Your task to perform on an android device: Open Google Chrome Image 0: 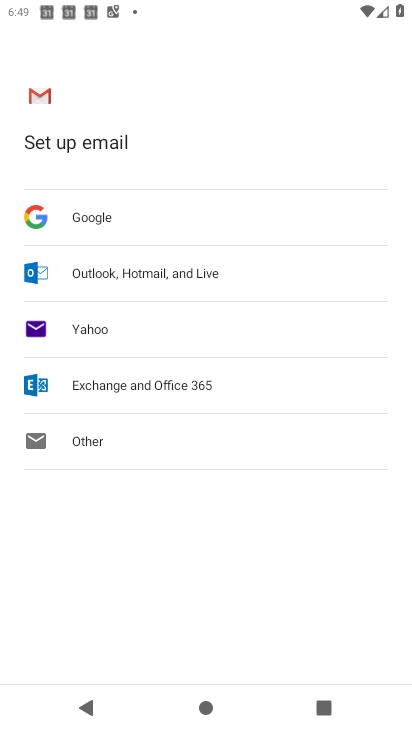
Step 0: press home button
Your task to perform on an android device: Open Google Chrome Image 1: 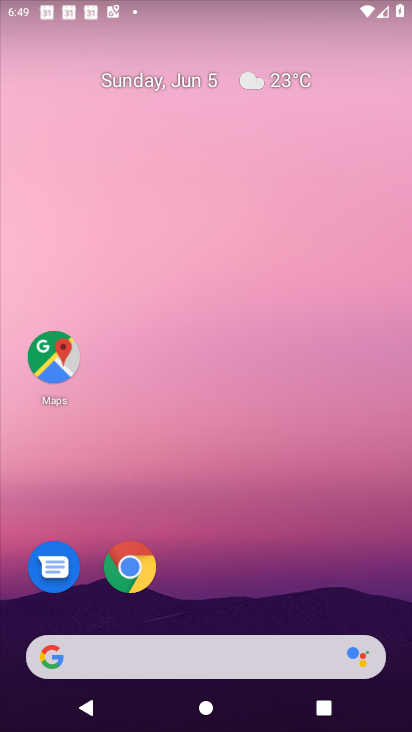
Step 1: drag from (392, 652) to (297, 68)
Your task to perform on an android device: Open Google Chrome Image 2: 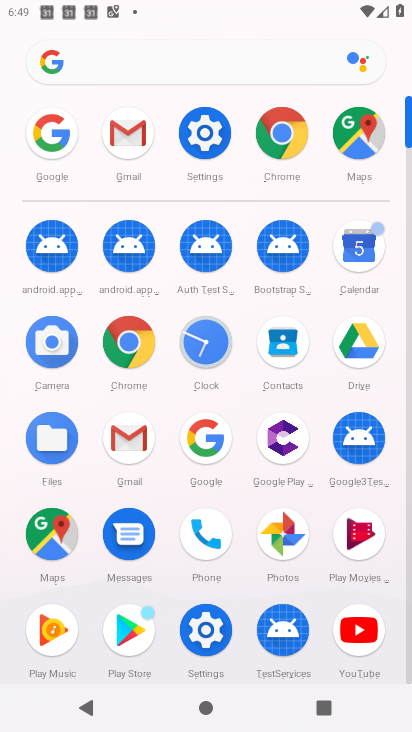
Step 2: click (267, 138)
Your task to perform on an android device: Open Google Chrome Image 3: 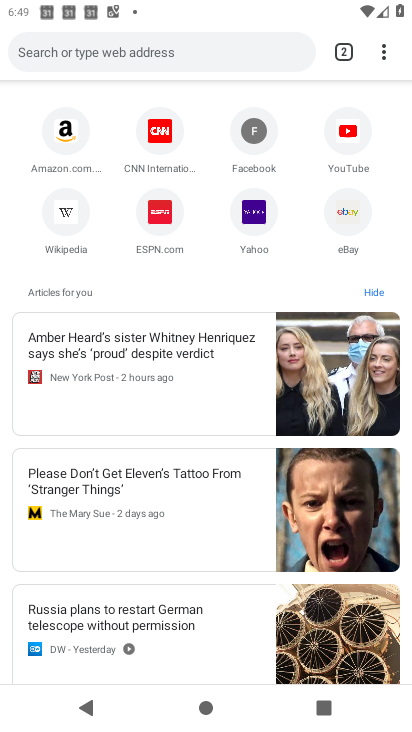
Step 3: task complete